Your task to perform on an android device: turn on improve location accuracy Image 0: 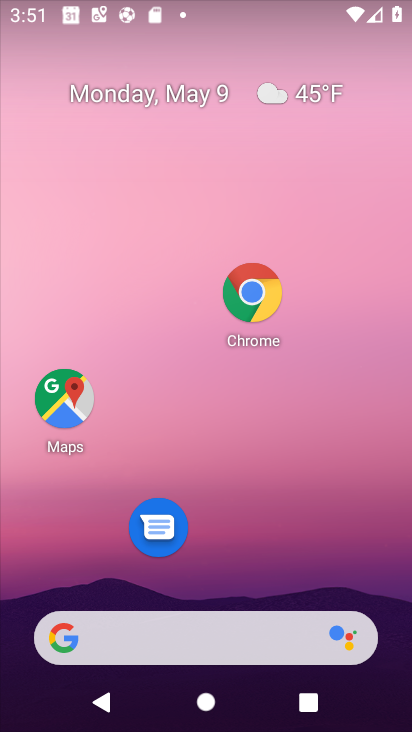
Step 0: drag from (313, 559) to (318, 153)
Your task to perform on an android device: turn on improve location accuracy Image 1: 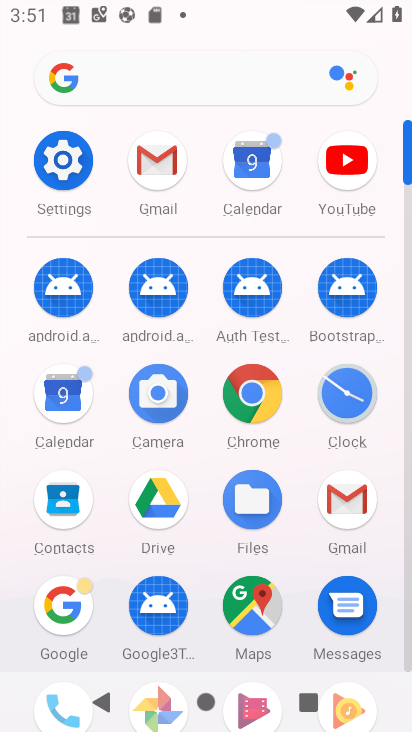
Step 1: click (75, 193)
Your task to perform on an android device: turn on improve location accuracy Image 2: 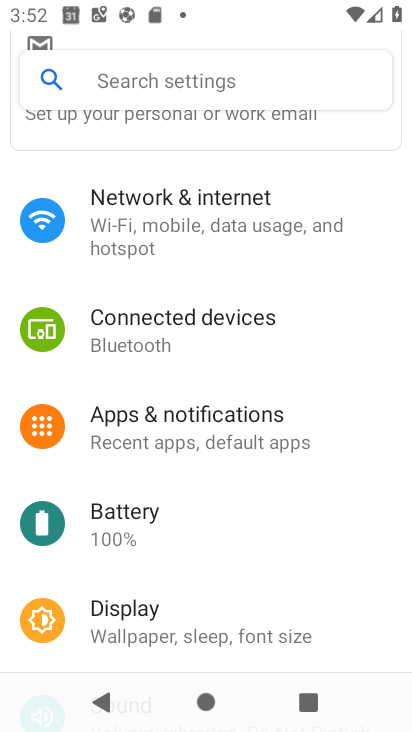
Step 2: drag from (190, 651) to (236, 392)
Your task to perform on an android device: turn on improve location accuracy Image 3: 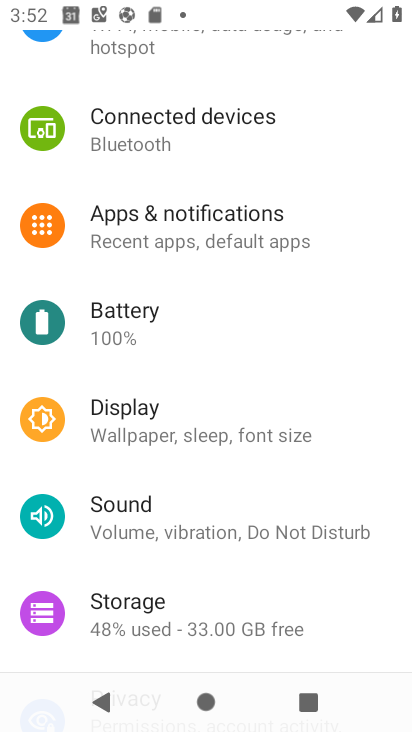
Step 3: drag from (209, 520) to (226, 355)
Your task to perform on an android device: turn on improve location accuracy Image 4: 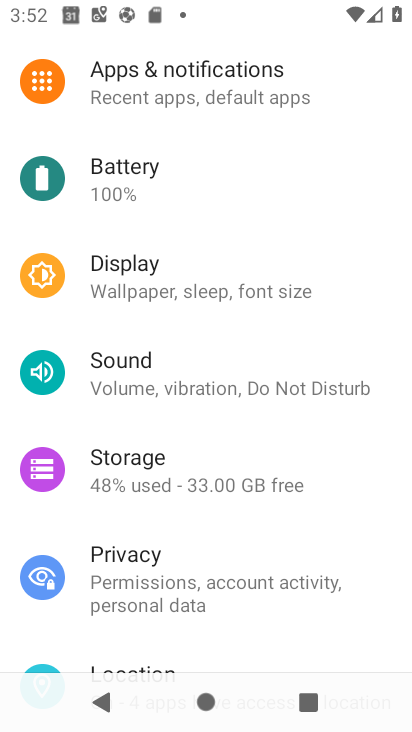
Step 4: drag from (200, 493) to (218, 335)
Your task to perform on an android device: turn on improve location accuracy Image 5: 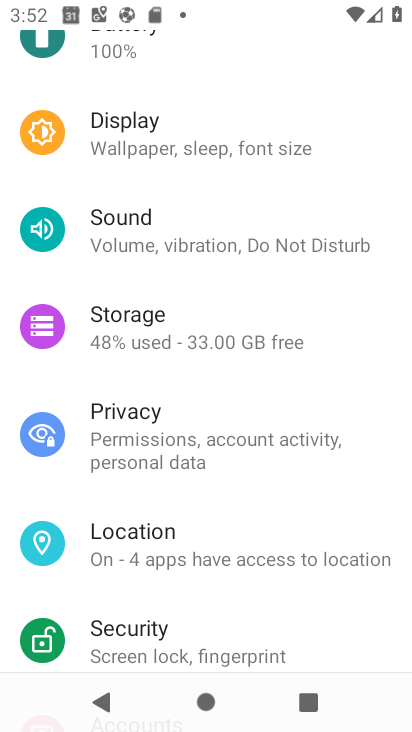
Step 5: click (197, 555)
Your task to perform on an android device: turn on improve location accuracy Image 6: 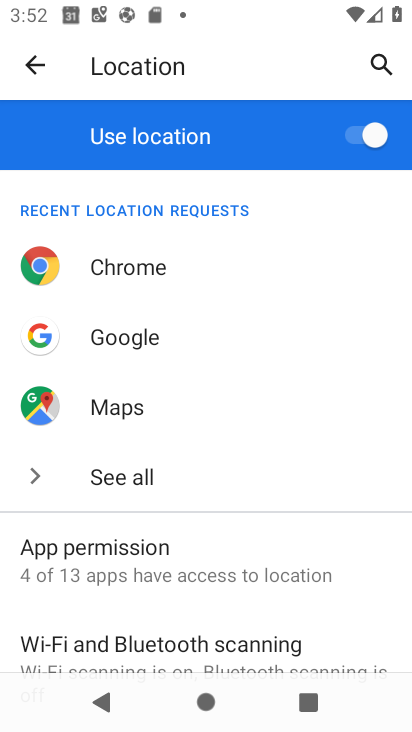
Step 6: drag from (197, 555) to (228, 293)
Your task to perform on an android device: turn on improve location accuracy Image 7: 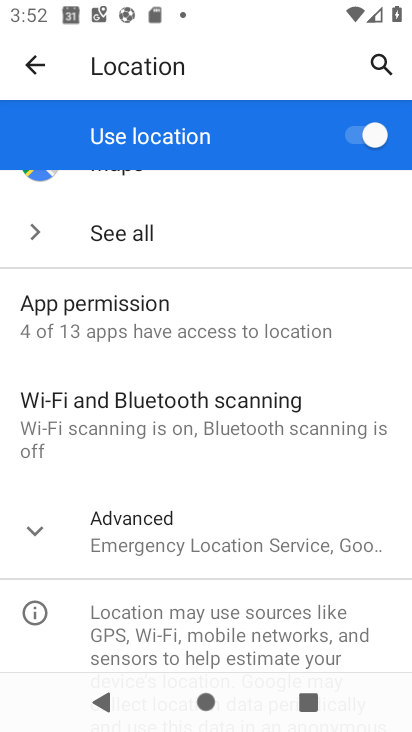
Step 7: click (226, 539)
Your task to perform on an android device: turn on improve location accuracy Image 8: 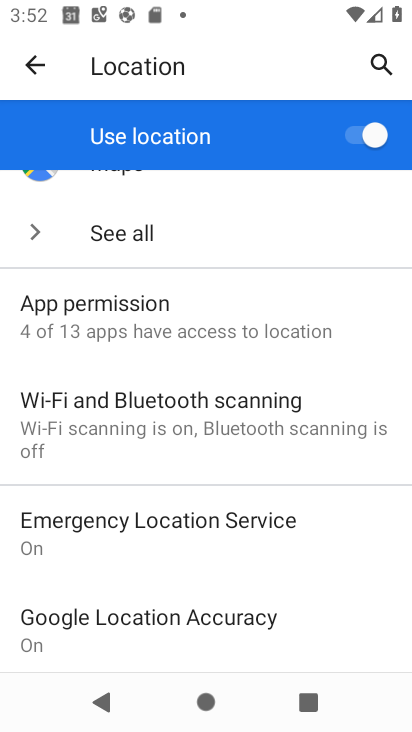
Step 8: click (201, 620)
Your task to perform on an android device: turn on improve location accuracy Image 9: 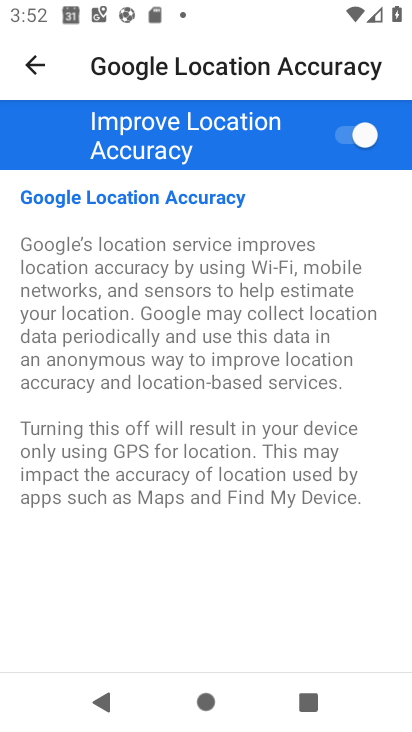
Step 9: task complete